Your task to perform on an android device: Open wifi settings Image 0: 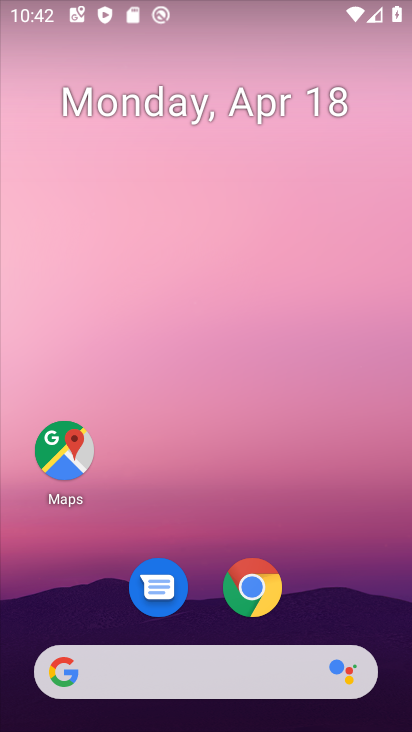
Step 0: drag from (349, 559) to (350, 99)
Your task to perform on an android device: Open wifi settings Image 1: 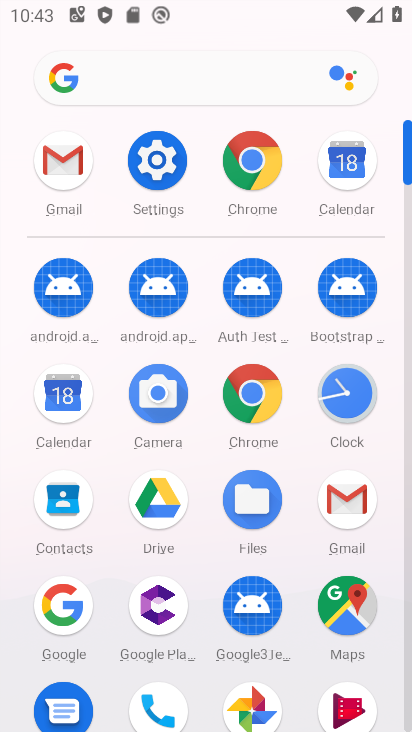
Step 1: click (149, 168)
Your task to perform on an android device: Open wifi settings Image 2: 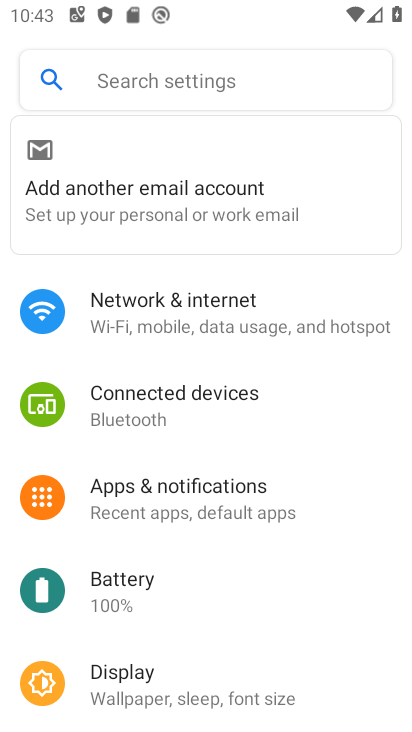
Step 2: click (166, 319)
Your task to perform on an android device: Open wifi settings Image 3: 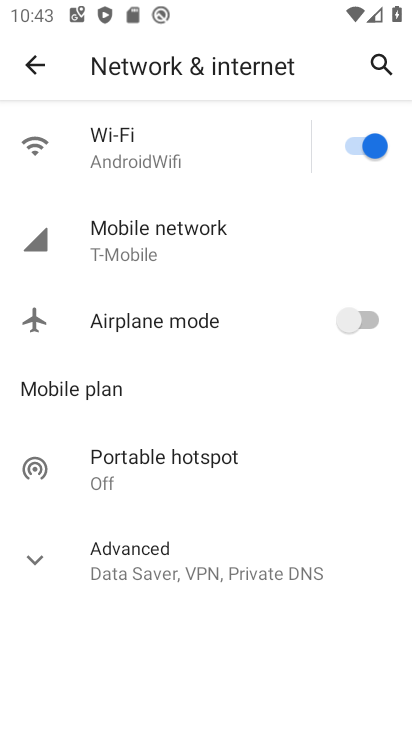
Step 3: click (157, 157)
Your task to perform on an android device: Open wifi settings Image 4: 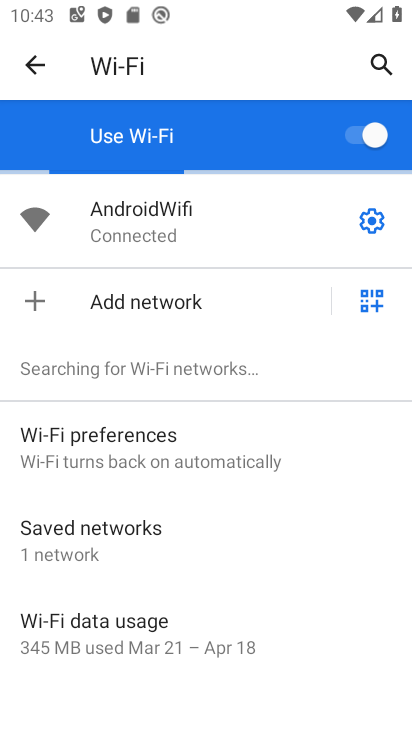
Step 4: task complete